Your task to perform on an android device: Open the stopwatch Image 0: 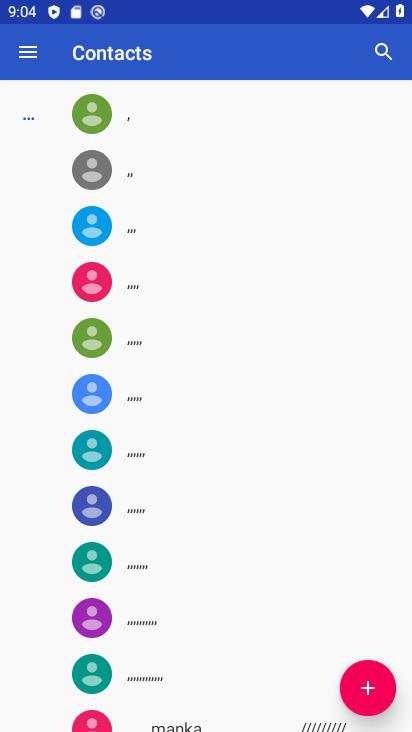
Step 0: press home button
Your task to perform on an android device: Open the stopwatch Image 1: 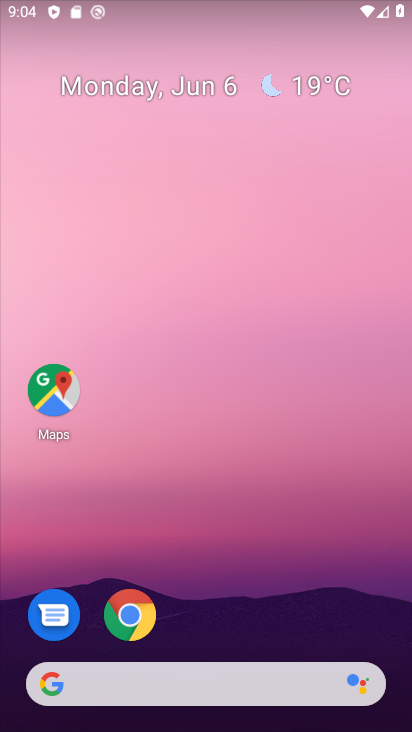
Step 1: drag from (255, 622) to (163, 137)
Your task to perform on an android device: Open the stopwatch Image 2: 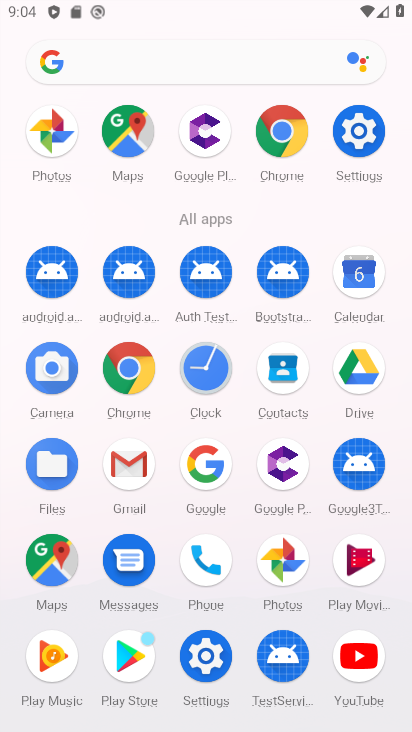
Step 2: click (207, 384)
Your task to perform on an android device: Open the stopwatch Image 3: 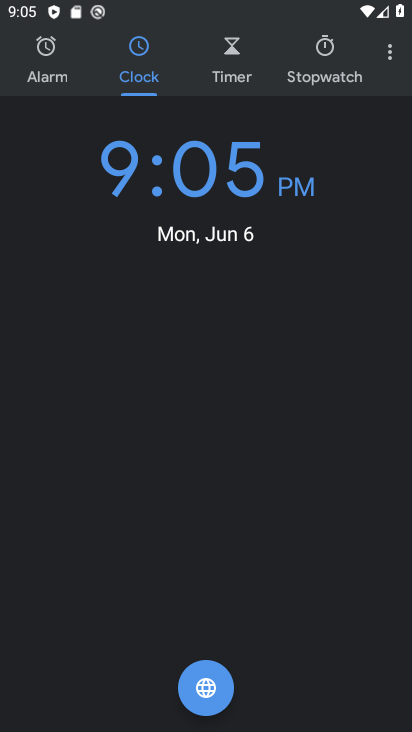
Step 3: click (313, 56)
Your task to perform on an android device: Open the stopwatch Image 4: 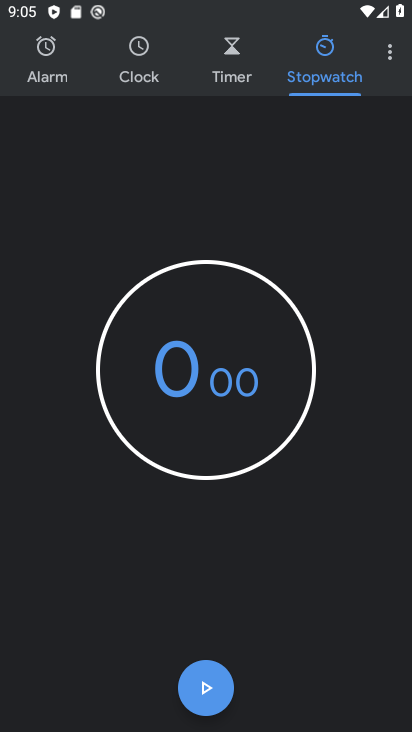
Step 4: task complete